Your task to perform on an android device: Open privacy settings Image 0: 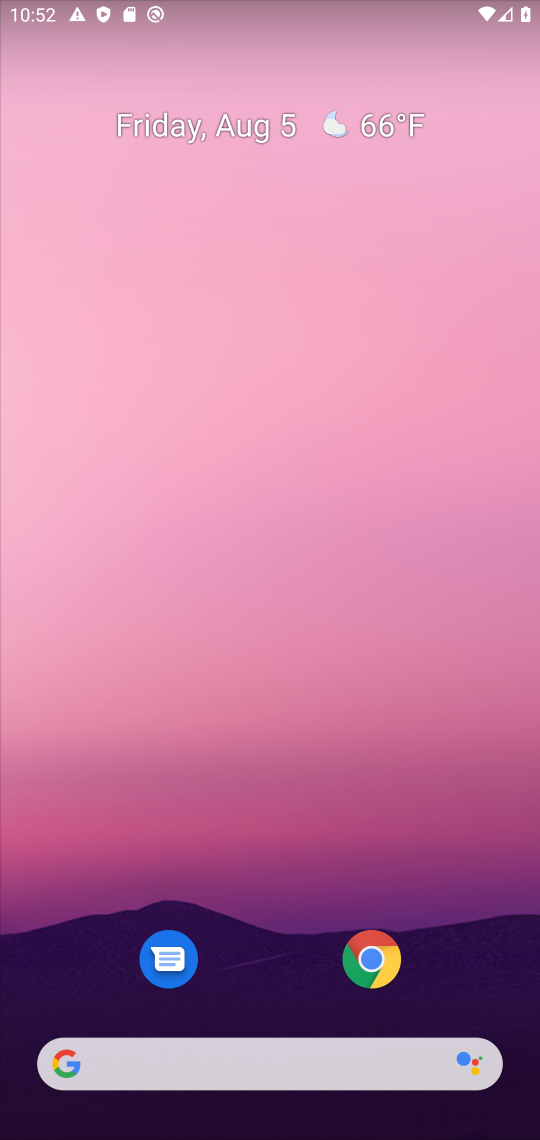
Step 0: drag from (221, 1075) to (260, 378)
Your task to perform on an android device: Open privacy settings Image 1: 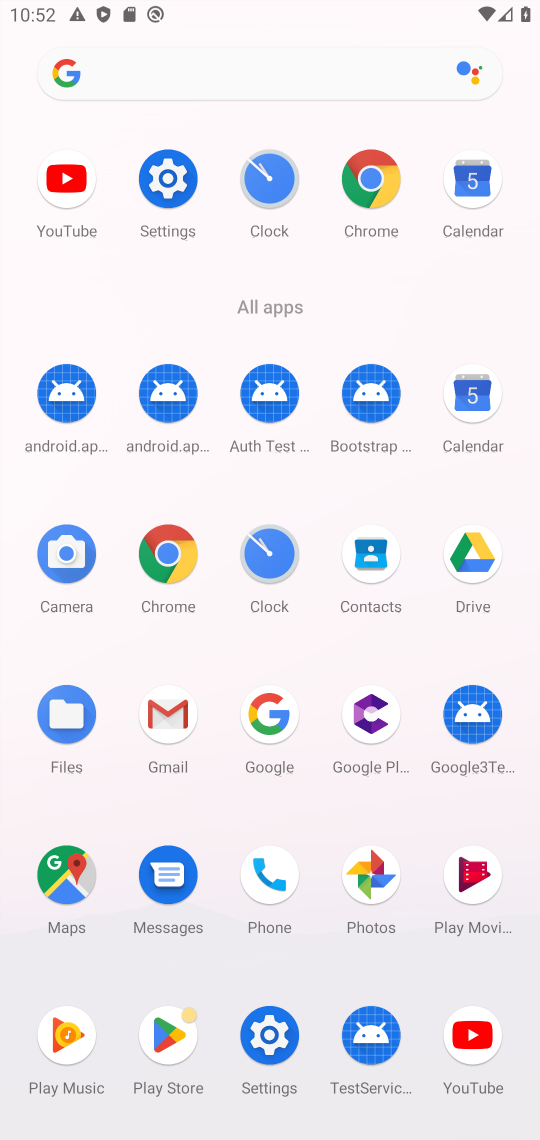
Step 1: click (269, 1036)
Your task to perform on an android device: Open privacy settings Image 2: 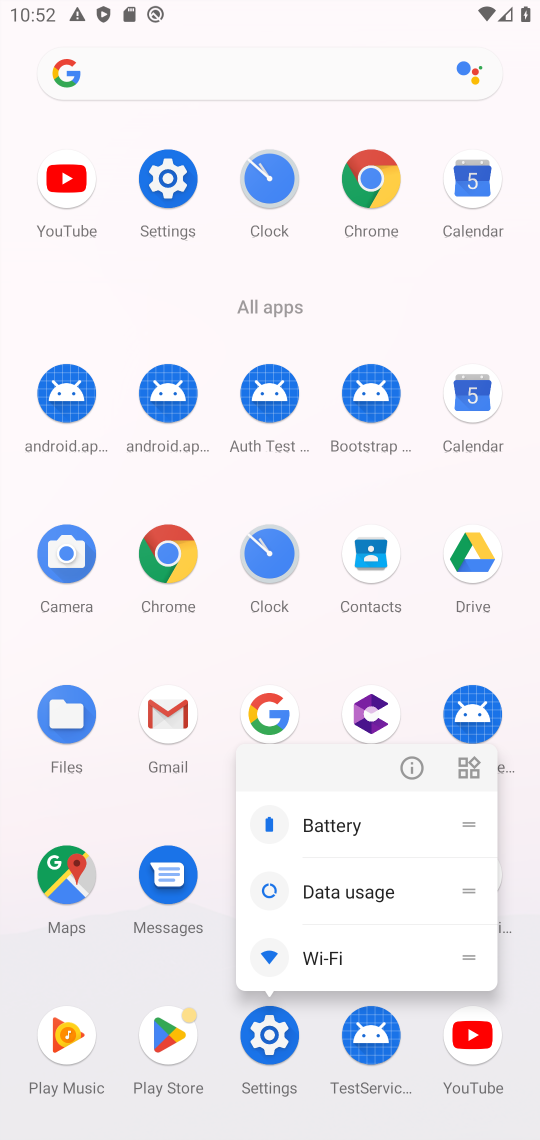
Step 2: click (279, 1020)
Your task to perform on an android device: Open privacy settings Image 3: 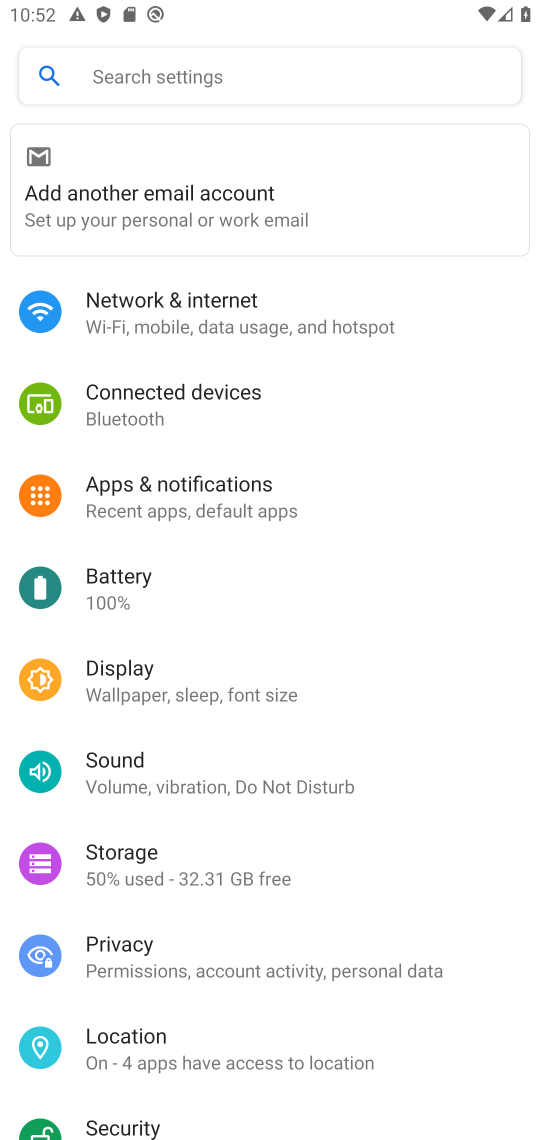
Step 3: click (142, 952)
Your task to perform on an android device: Open privacy settings Image 4: 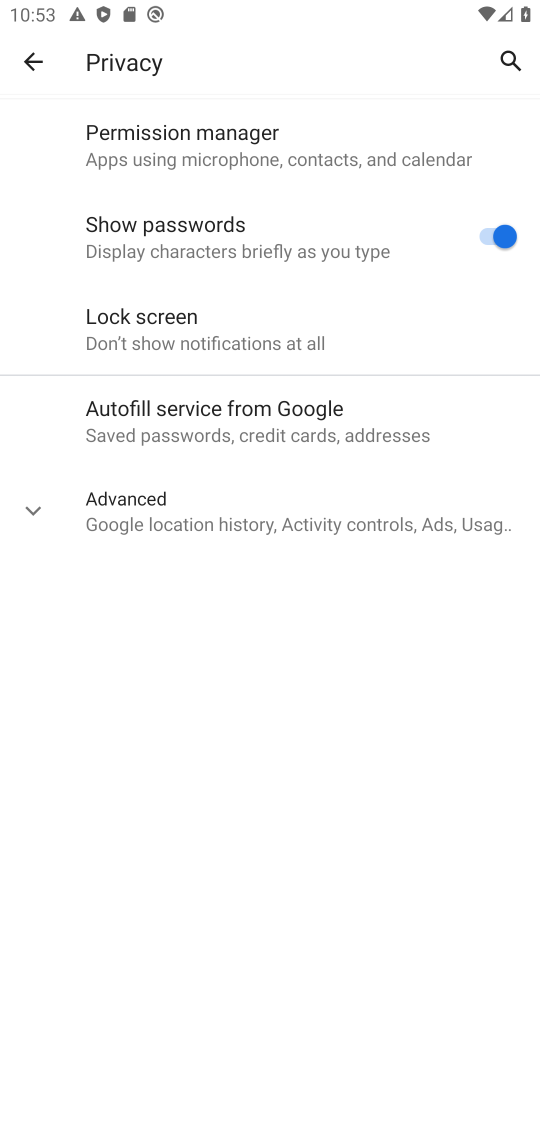
Step 4: task complete